Your task to perform on an android device: Is it going to rain tomorrow? Image 0: 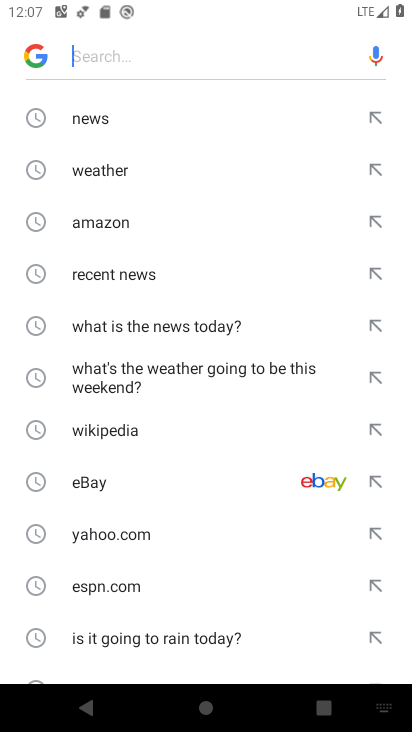
Step 0: press home button
Your task to perform on an android device: Is it going to rain tomorrow? Image 1: 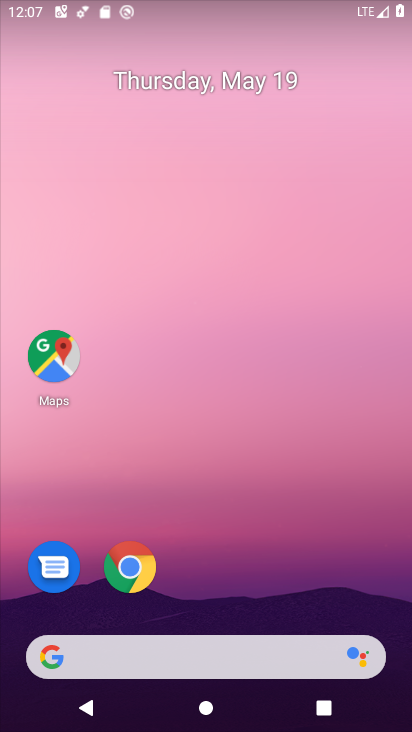
Step 1: drag from (292, 554) to (385, 51)
Your task to perform on an android device: Is it going to rain tomorrow? Image 2: 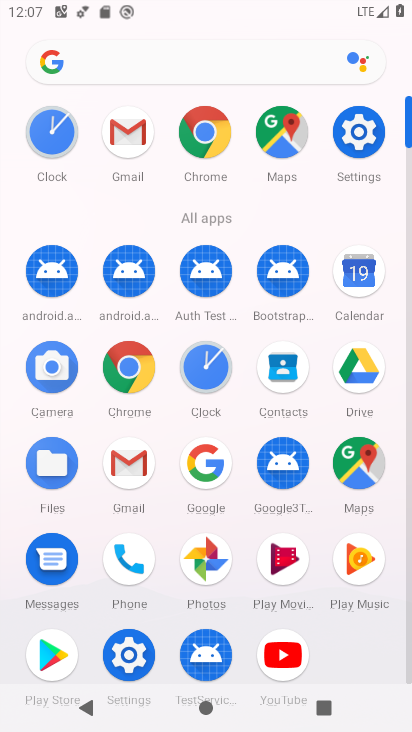
Step 2: press home button
Your task to perform on an android device: Is it going to rain tomorrow? Image 3: 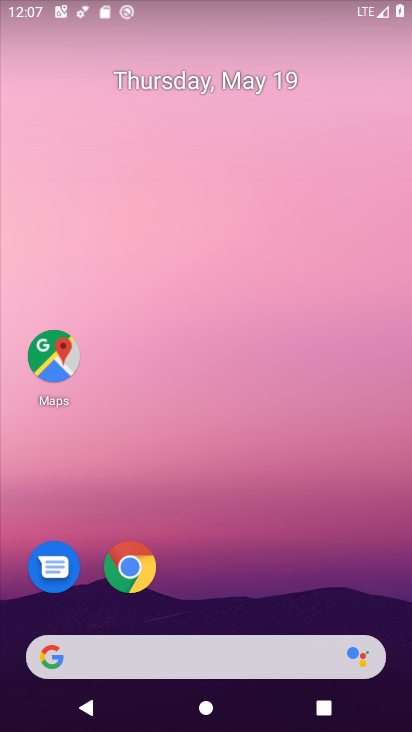
Step 3: click (47, 670)
Your task to perform on an android device: Is it going to rain tomorrow? Image 4: 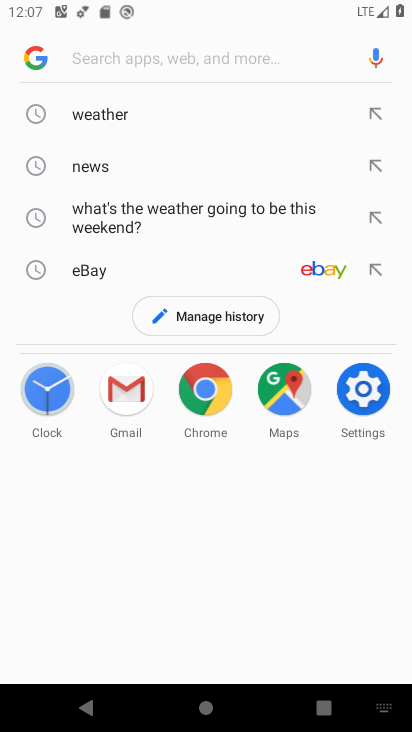
Step 4: click (49, 64)
Your task to perform on an android device: Is it going to rain tomorrow? Image 5: 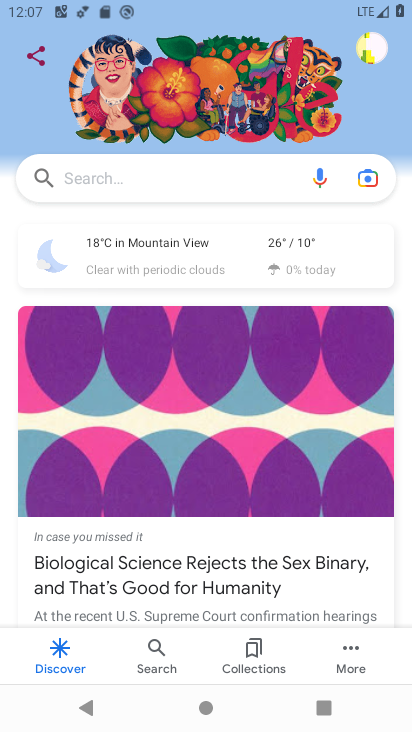
Step 5: click (137, 266)
Your task to perform on an android device: Is it going to rain tomorrow? Image 6: 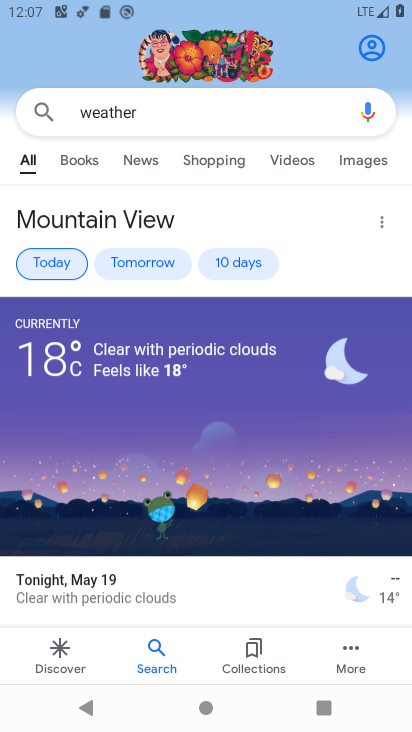
Step 6: task complete